Your task to perform on an android device: Search for seafood restaurants on Google Maps Image 0: 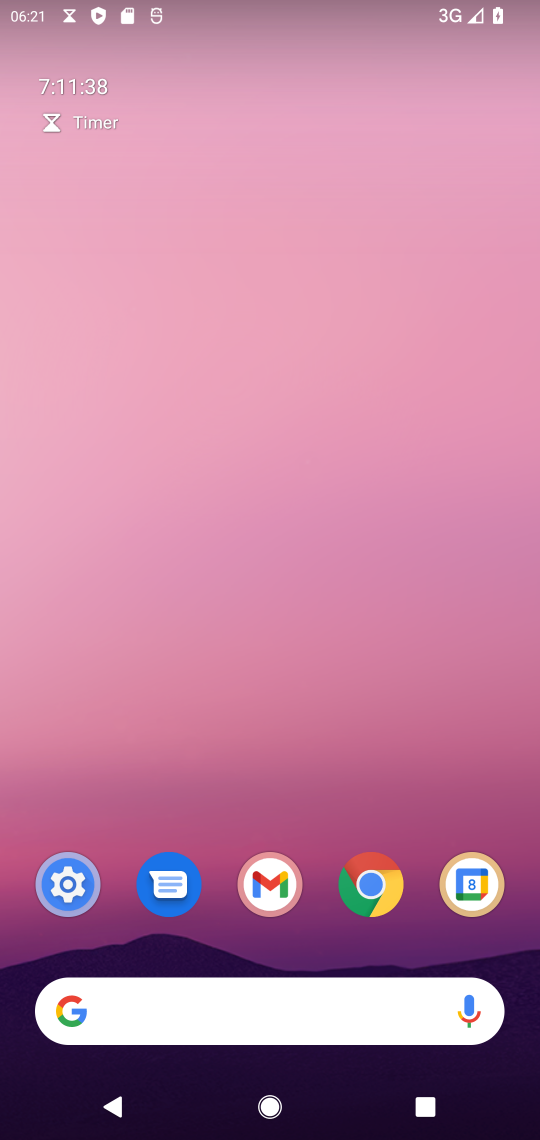
Step 0: drag from (311, 818) to (263, 87)
Your task to perform on an android device: Search for seafood restaurants on Google Maps Image 1: 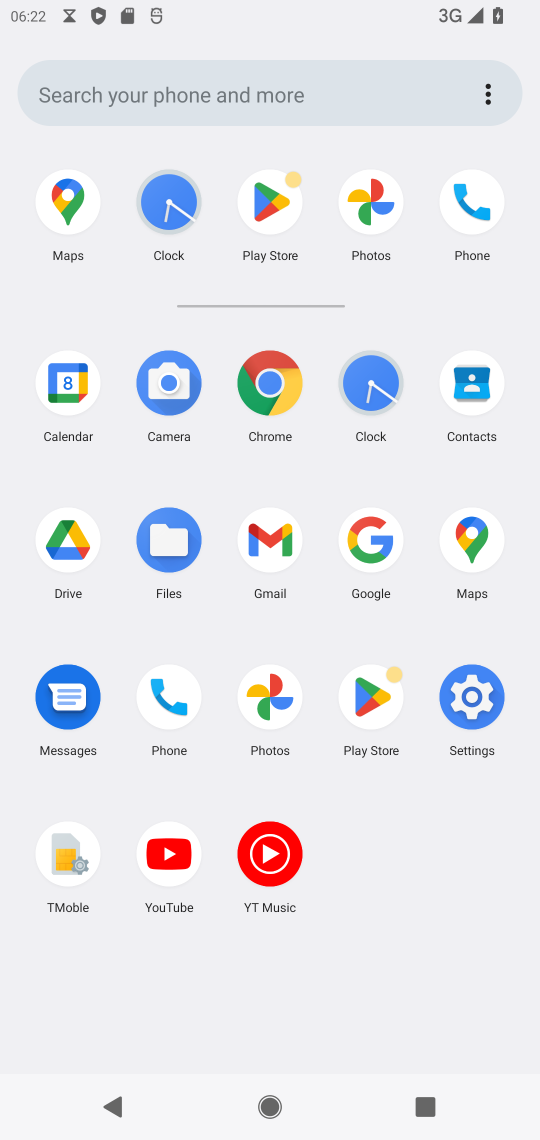
Step 1: click (482, 553)
Your task to perform on an android device: Search for seafood restaurants on Google Maps Image 2: 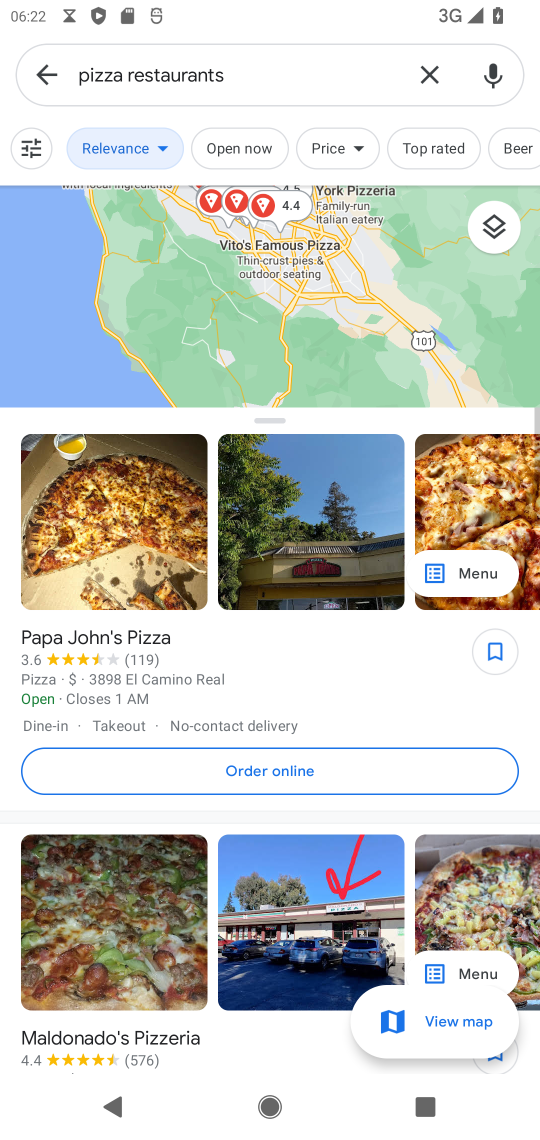
Step 2: click (428, 62)
Your task to perform on an android device: Search for seafood restaurants on Google Maps Image 3: 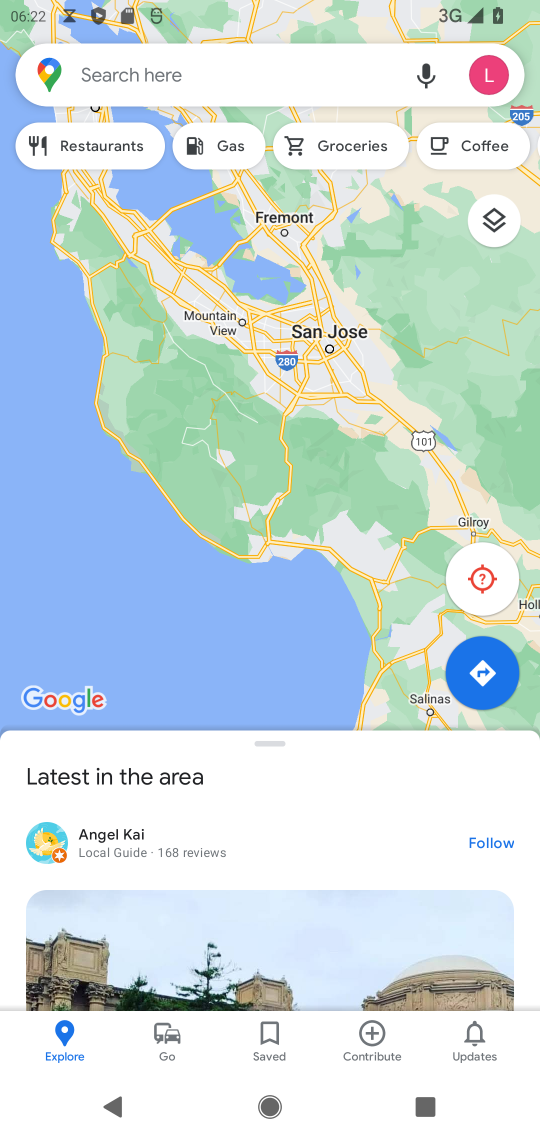
Step 3: click (215, 63)
Your task to perform on an android device: Search for seafood restaurants on Google Maps Image 4: 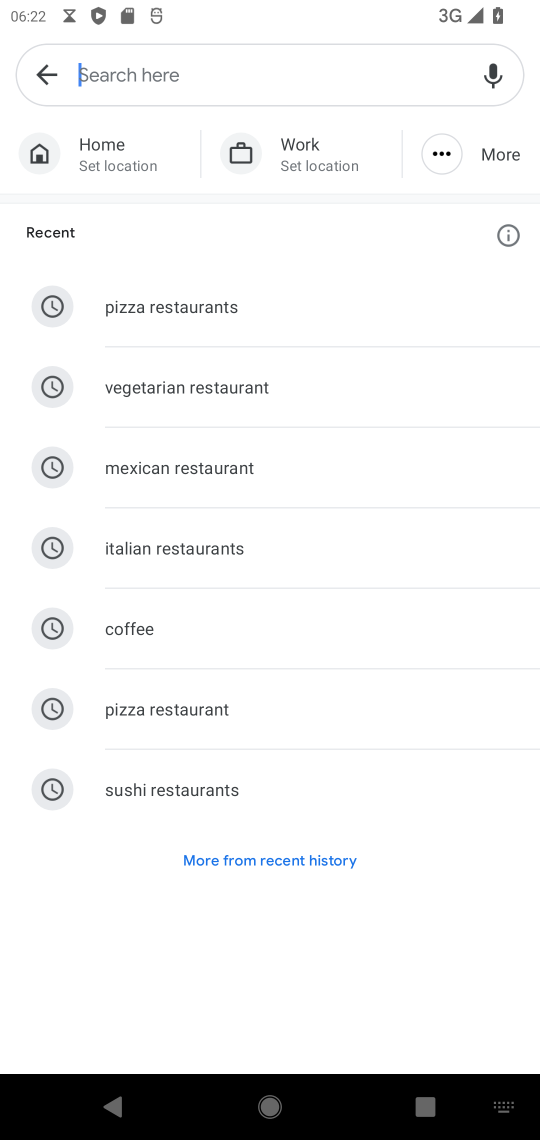
Step 4: type "seafood restaurants"
Your task to perform on an android device: Search for seafood restaurants on Google Maps Image 5: 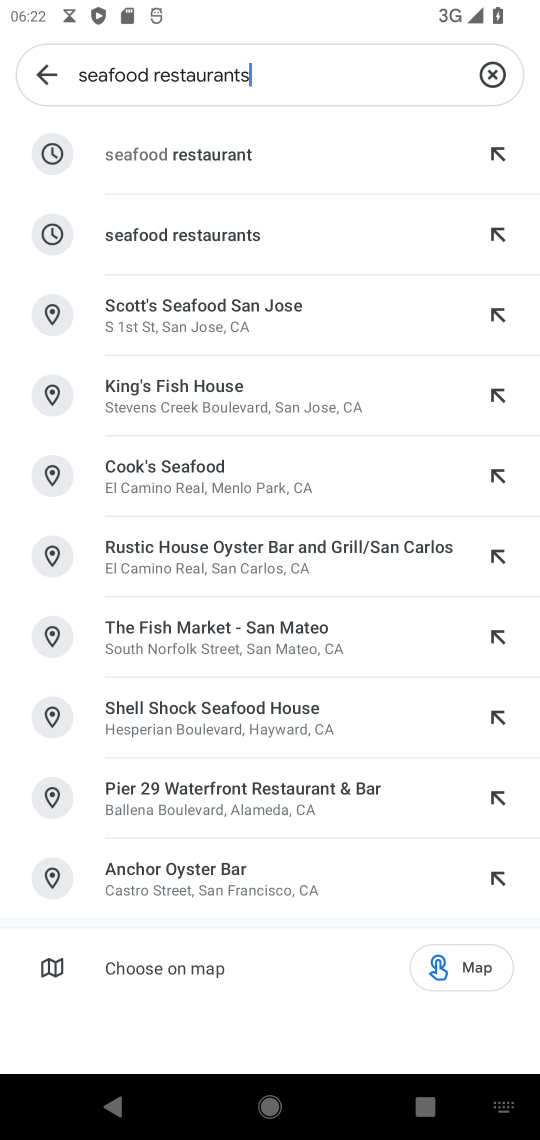
Step 5: click (315, 150)
Your task to perform on an android device: Search for seafood restaurants on Google Maps Image 6: 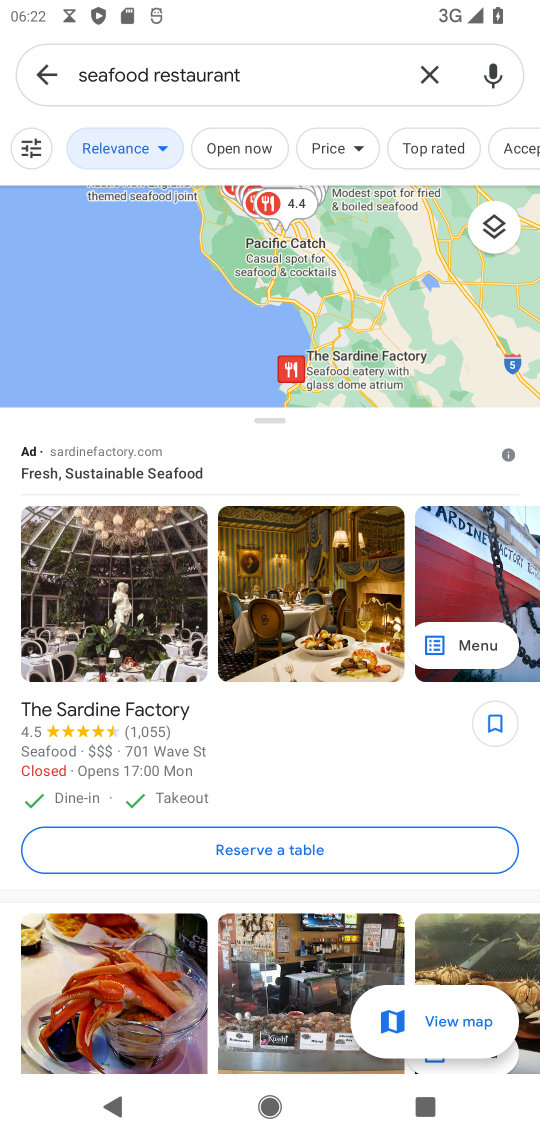
Step 6: task complete